Your task to perform on an android device: Play the last video I watched on Youtube Image 0: 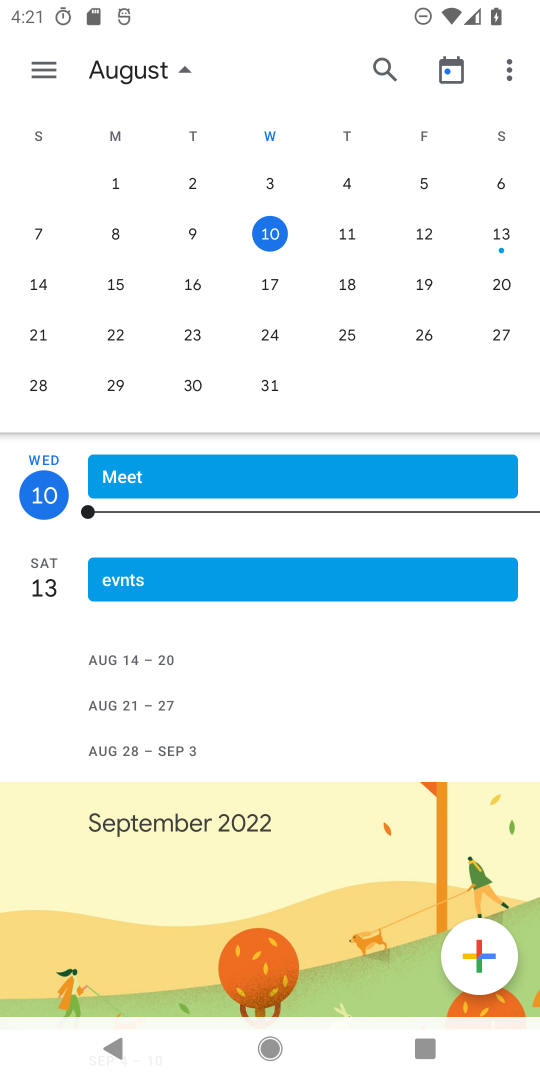
Step 0: press home button
Your task to perform on an android device: Play the last video I watched on Youtube Image 1: 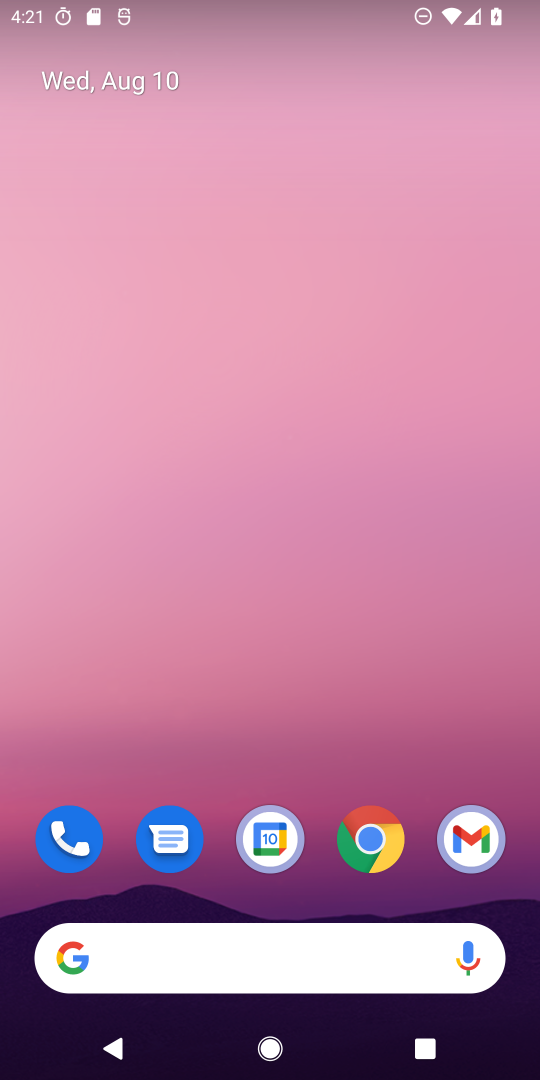
Step 1: drag from (64, 1016) to (400, 262)
Your task to perform on an android device: Play the last video I watched on Youtube Image 2: 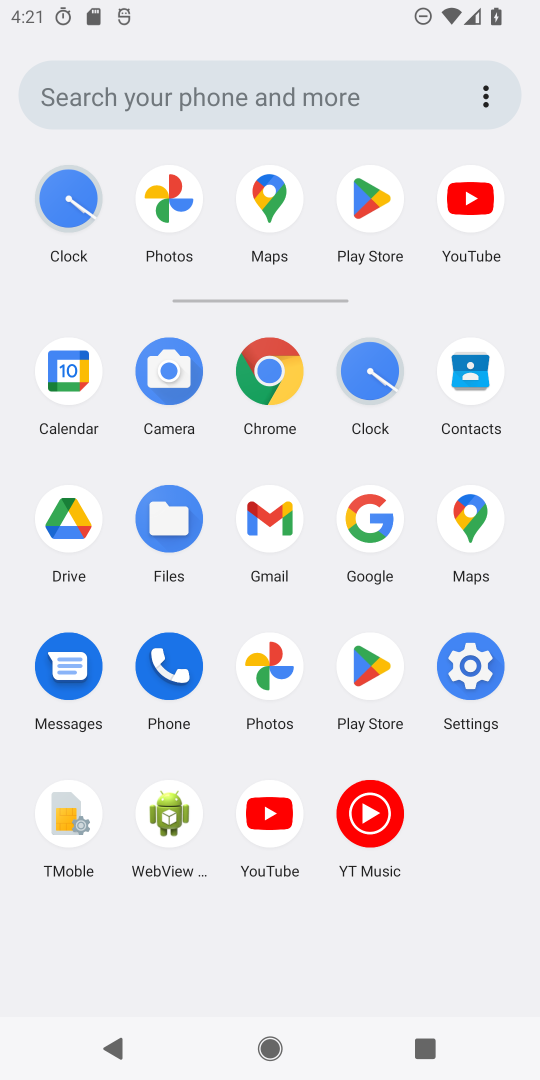
Step 2: click (273, 817)
Your task to perform on an android device: Play the last video I watched on Youtube Image 3: 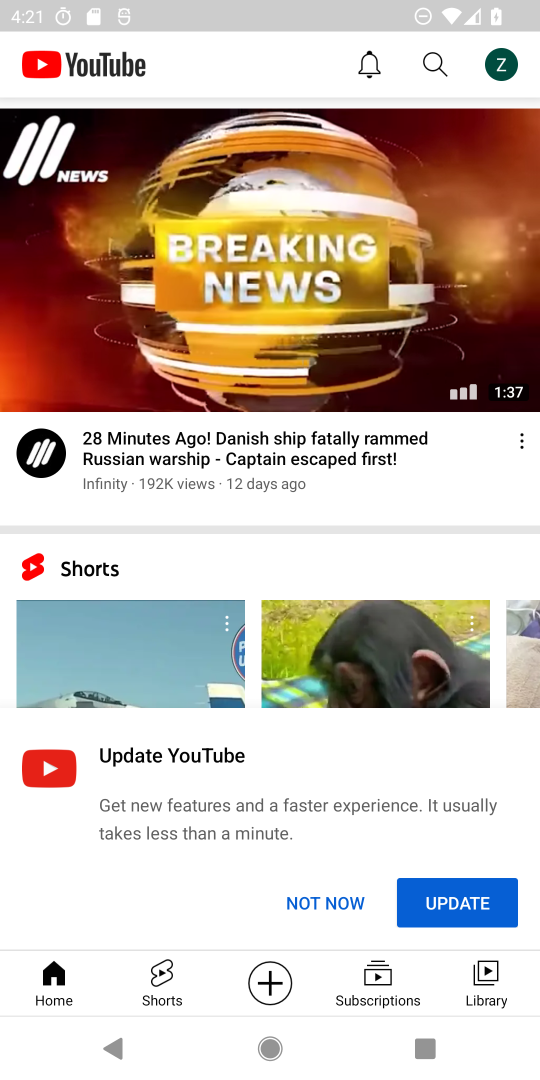
Step 3: click (505, 61)
Your task to perform on an android device: Play the last video I watched on Youtube Image 4: 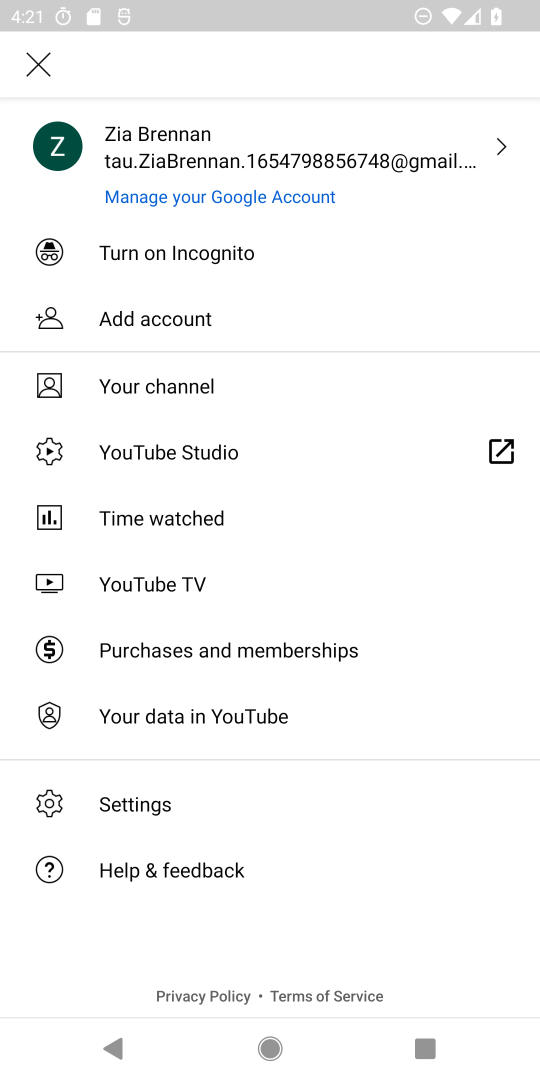
Step 4: click (38, 67)
Your task to perform on an android device: Play the last video I watched on Youtube Image 5: 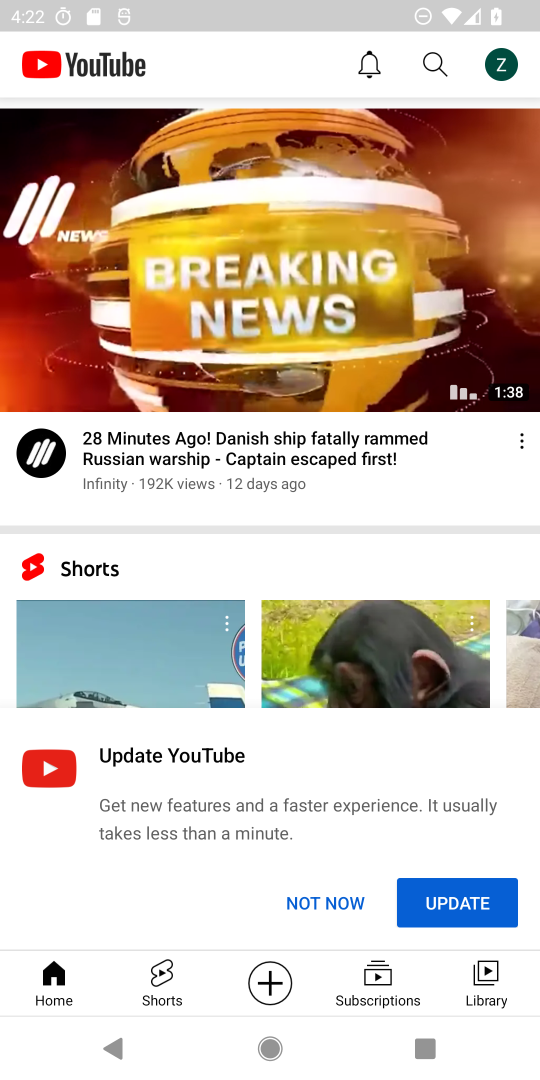
Step 5: click (494, 1001)
Your task to perform on an android device: Play the last video I watched on Youtube Image 6: 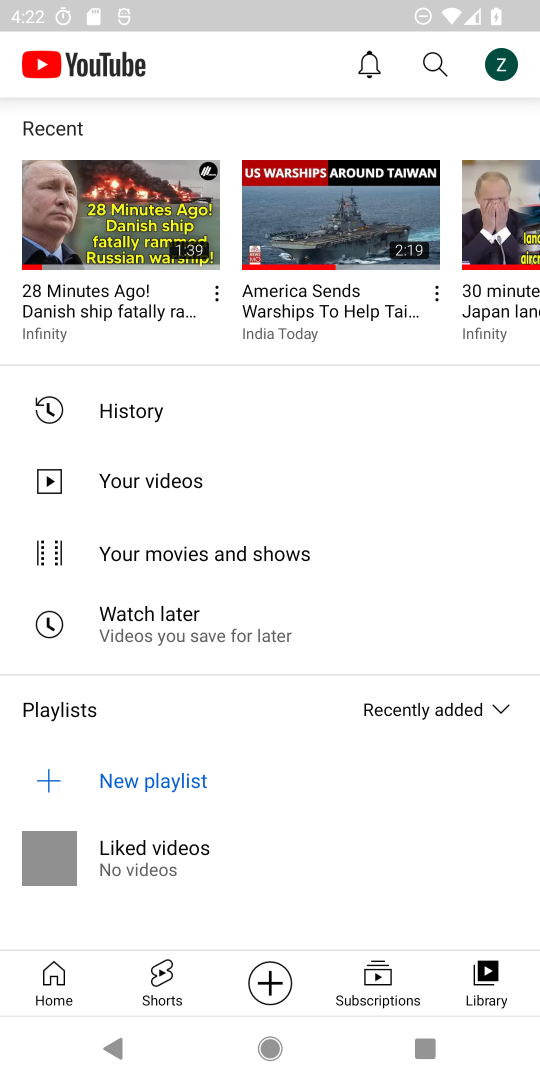
Step 6: click (153, 206)
Your task to perform on an android device: Play the last video I watched on Youtube Image 7: 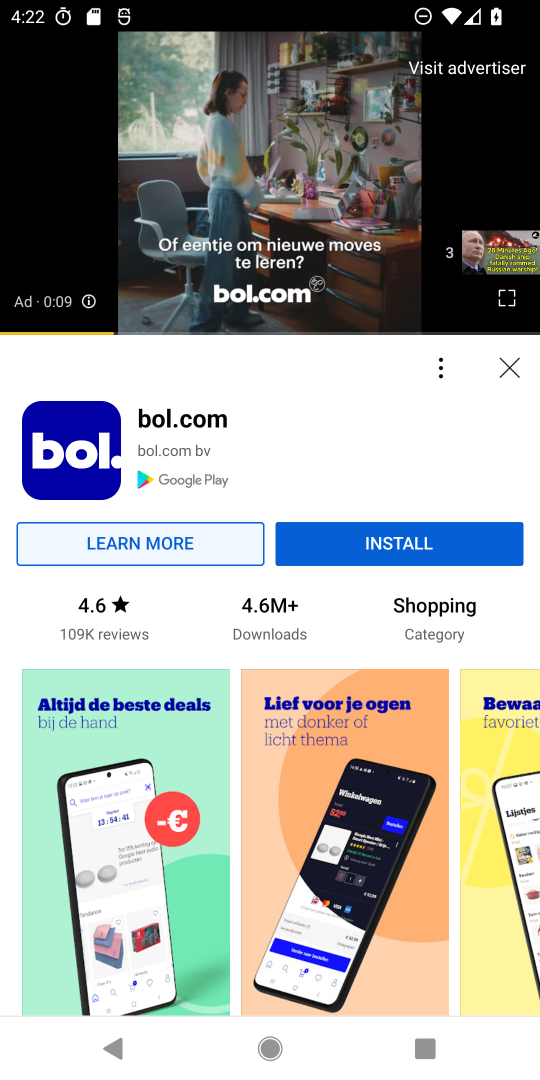
Step 7: click (250, 196)
Your task to perform on an android device: Play the last video I watched on Youtube Image 8: 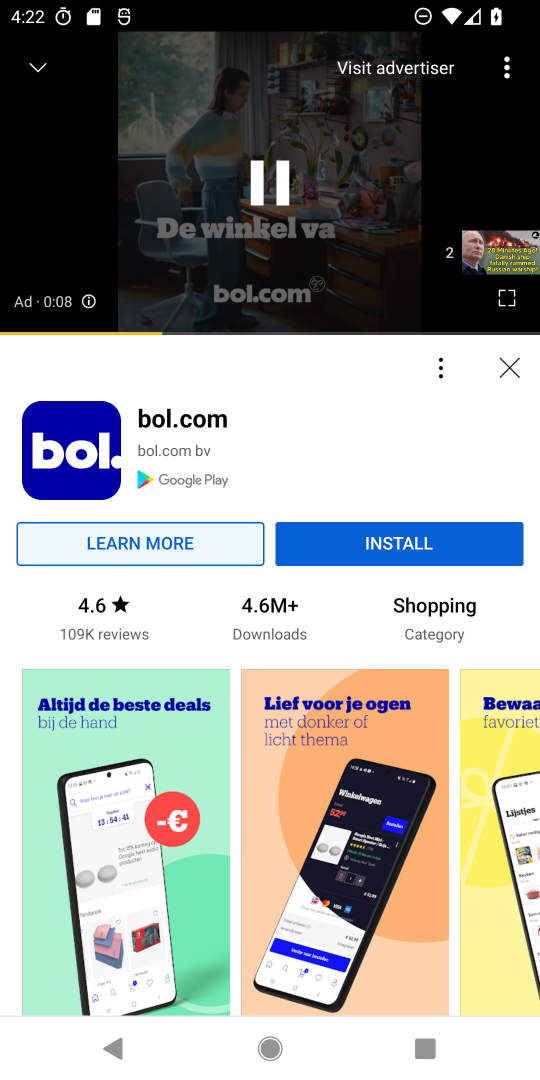
Step 8: task complete